Your task to perform on an android device: stop showing notifications on the lock screen Image 0: 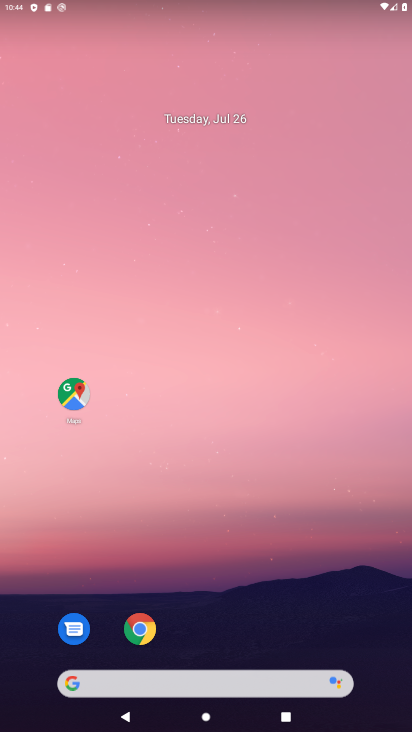
Step 0: drag from (227, 628) to (154, 91)
Your task to perform on an android device: stop showing notifications on the lock screen Image 1: 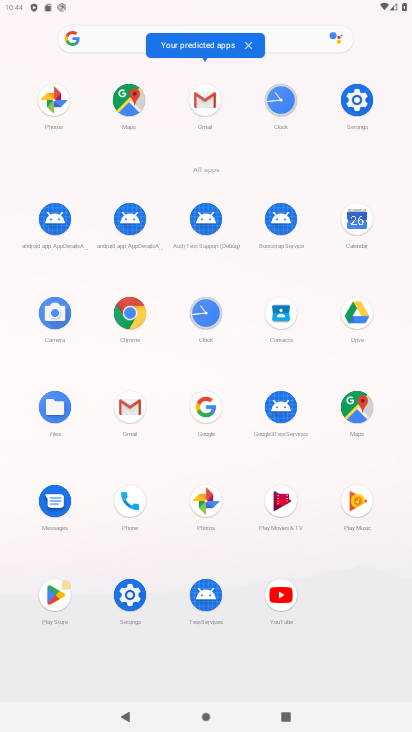
Step 1: click (122, 589)
Your task to perform on an android device: stop showing notifications on the lock screen Image 2: 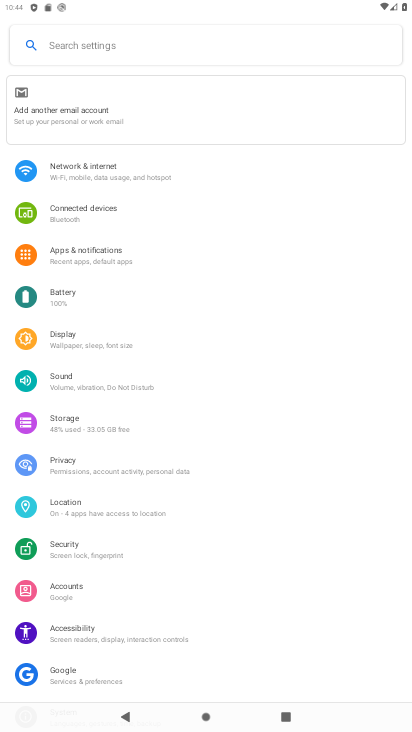
Step 2: click (74, 245)
Your task to perform on an android device: stop showing notifications on the lock screen Image 3: 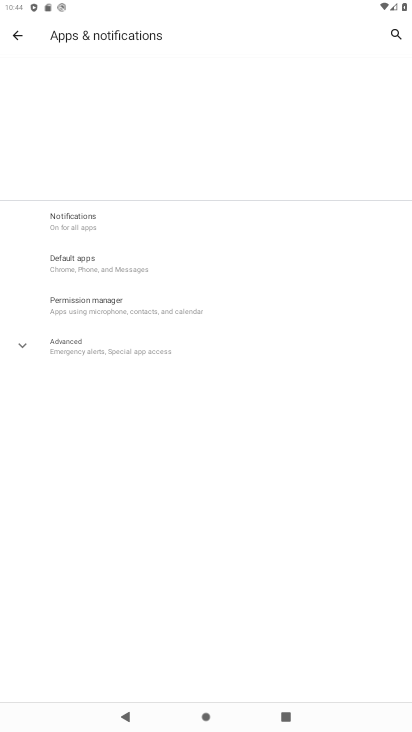
Step 3: click (73, 220)
Your task to perform on an android device: stop showing notifications on the lock screen Image 4: 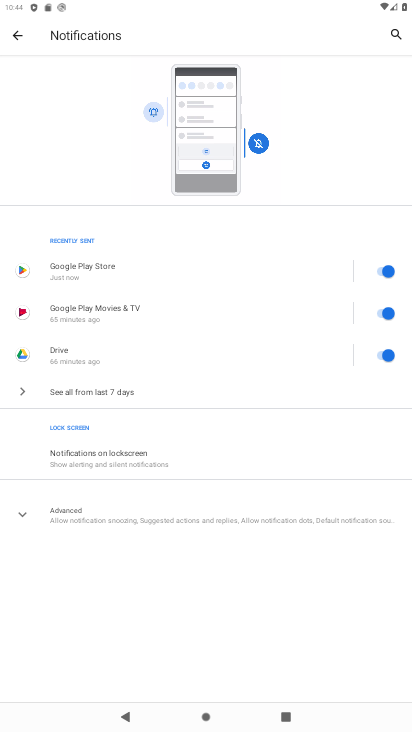
Step 4: click (90, 511)
Your task to perform on an android device: stop showing notifications on the lock screen Image 5: 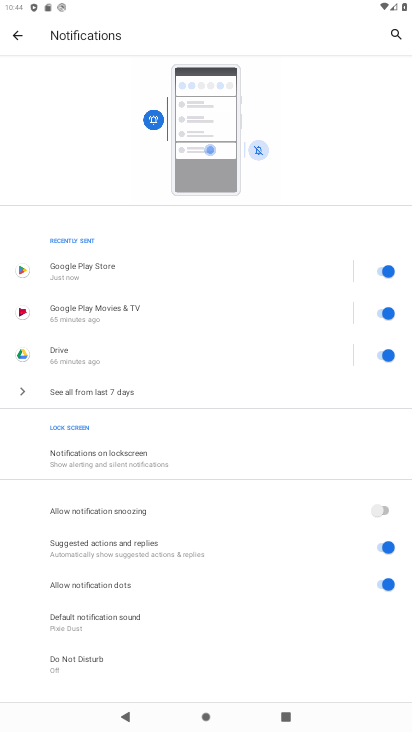
Step 5: drag from (204, 571) to (212, 323)
Your task to perform on an android device: stop showing notifications on the lock screen Image 6: 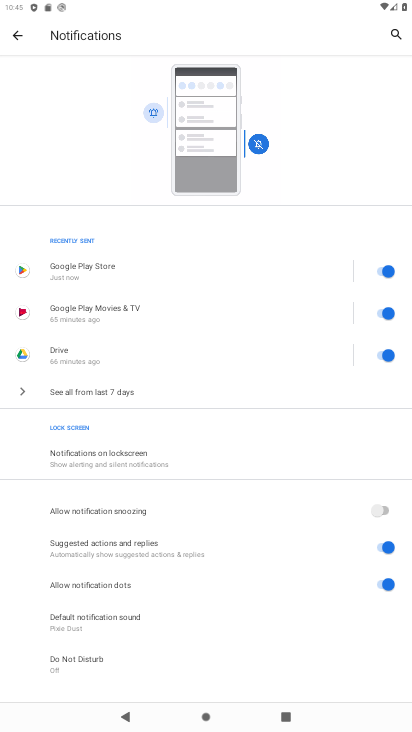
Step 6: click (98, 450)
Your task to perform on an android device: stop showing notifications on the lock screen Image 7: 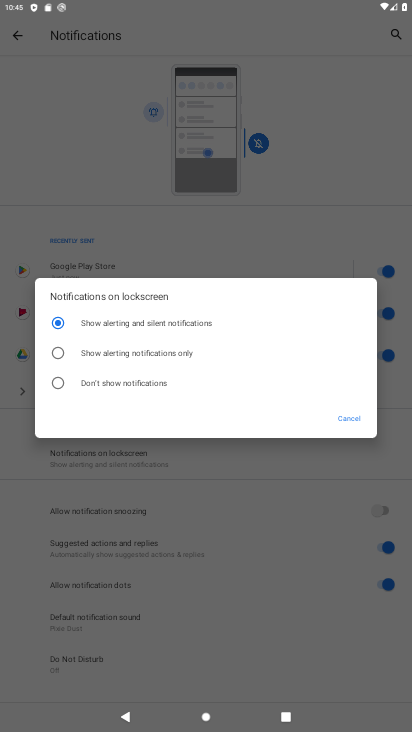
Step 7: click (87, 378)
Your task to perform on an android device: stop showing notifications on the lock screen Image 8: 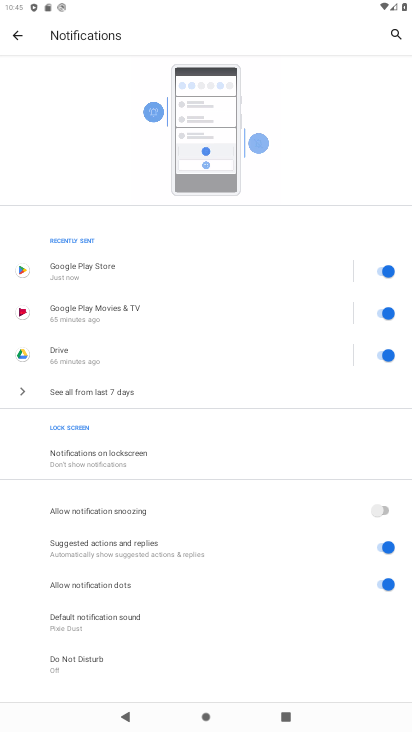
Step 8: task complete